Your task to perform on an android device: check out phone information Image 0: 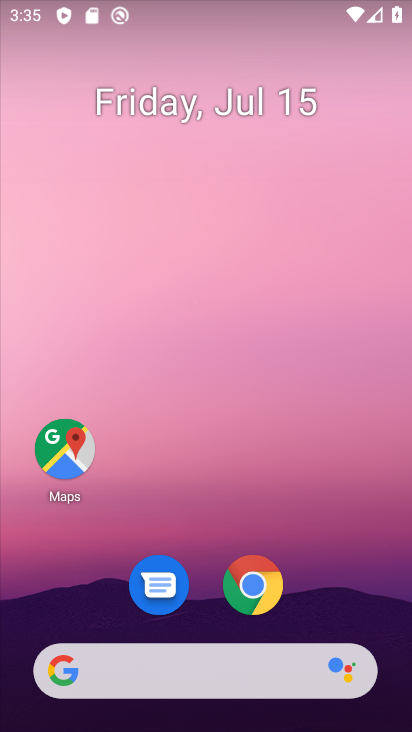
Step 0: drag from (230, 504) to (249, 0)
Your task to perform on an android device: check out phone information Image 1: 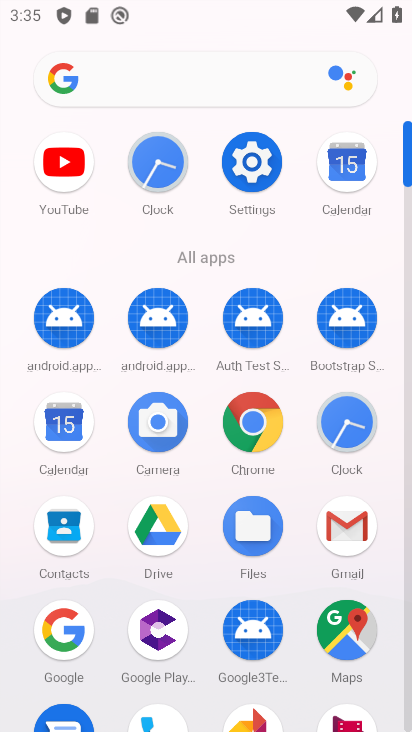
Step 1: drag from (207, 404) to (231, 77)
Your task to perform on an android device: check out phone information Image 2: 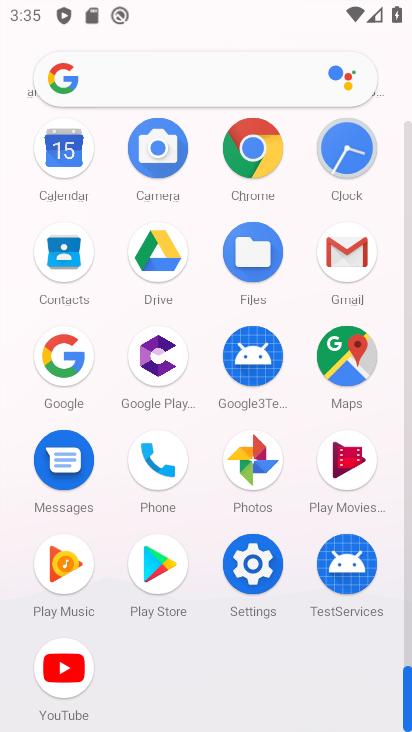
Step 2: click (165, 464)
Your task to perform on an android device: check out phone information Image 3: 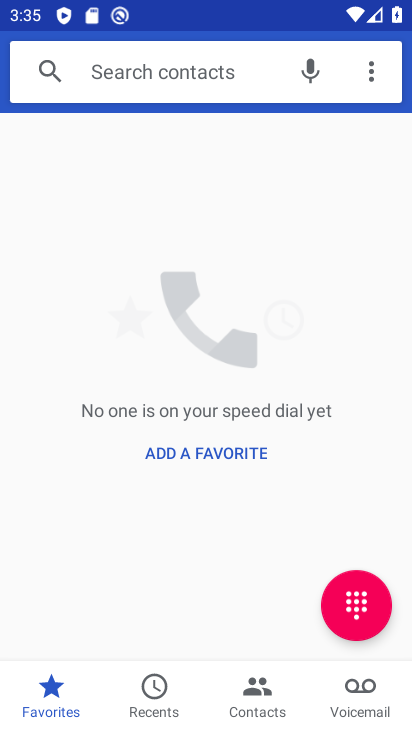
Step 3: click (370, 71)
Your task to perform on an android device: check out phone information Image 4: 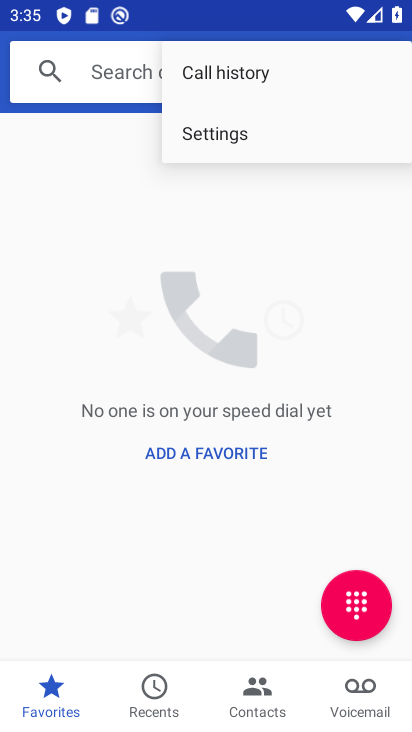
Step 4: click (246, 130)
Your task to perform on an android device: check out phone information Image 5: 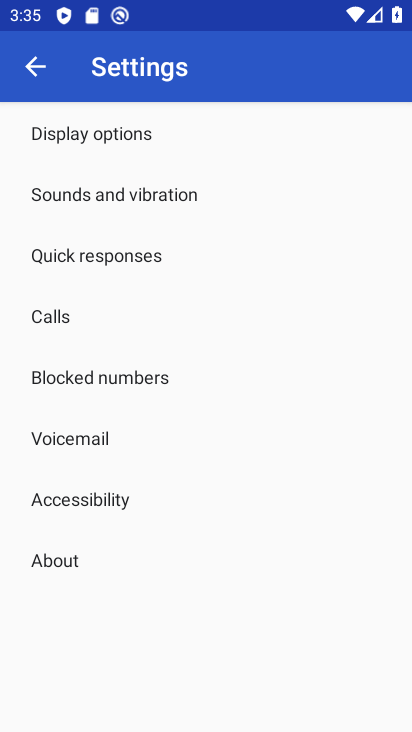
Step 5: click (71, 556)
Your task to perform on an android device: check out phone information Image 6: 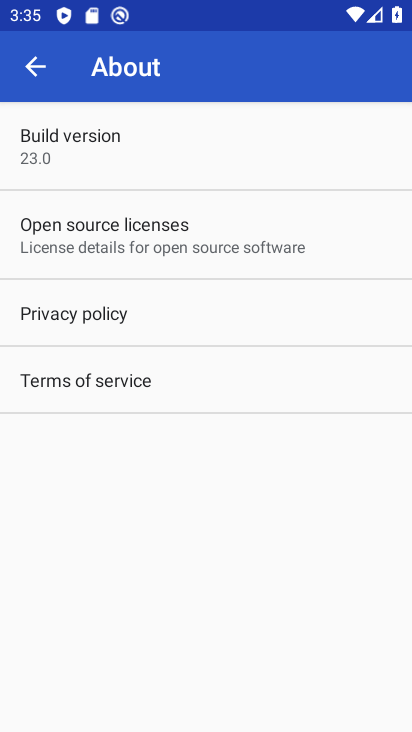
Step 6: task complete